Your task to perform on an android device: delete the emails in spam in the gmail app Image 0: 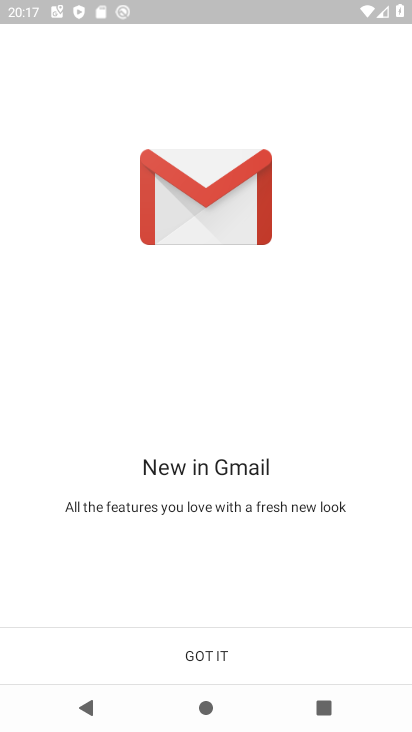
Step 0: press home button
Your task to perform on an android device: delete the emails in spam in the gmail app Image 1: 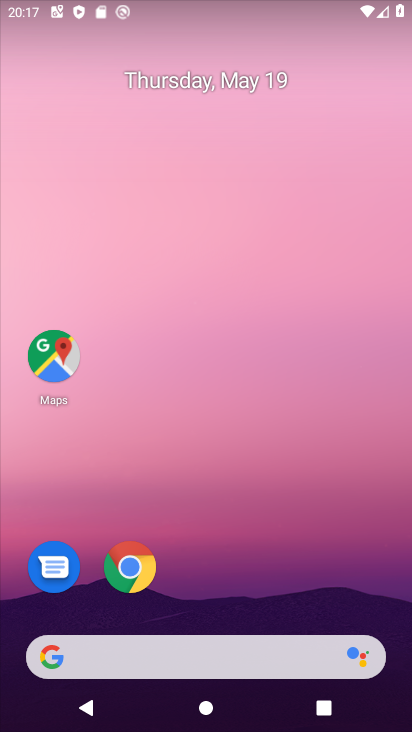
Step 1: drag from (222, 616) to (279, 192)
Your task to perform on an android device: delete the emails in spam in the gmail app Image 2: 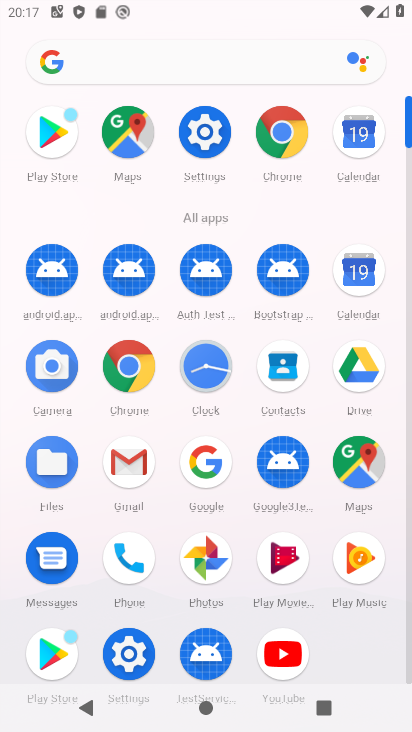
Step 2: click (115, 466)
Your task to perform on an android device: delete the emails in spam in the gmail app Image 3: 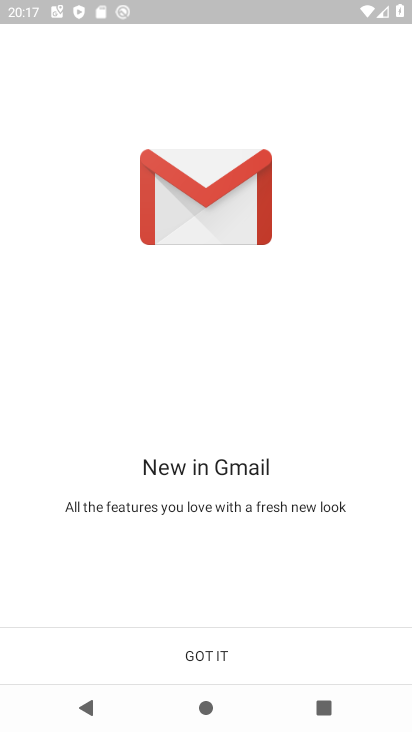
Step 3: click (220, 659)
Your task to perform on an android device: delete the emails in spam in the gmail app Image 4: 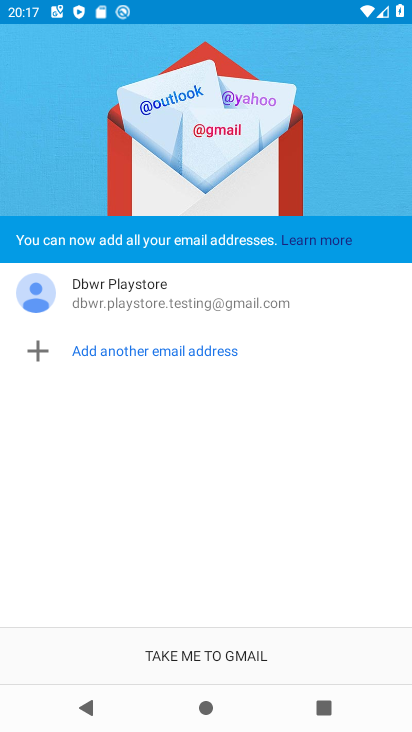
Step 4: click (219, 656)
Your task to perform on an android device: delete the emails in spam in the gmail app Image 5: 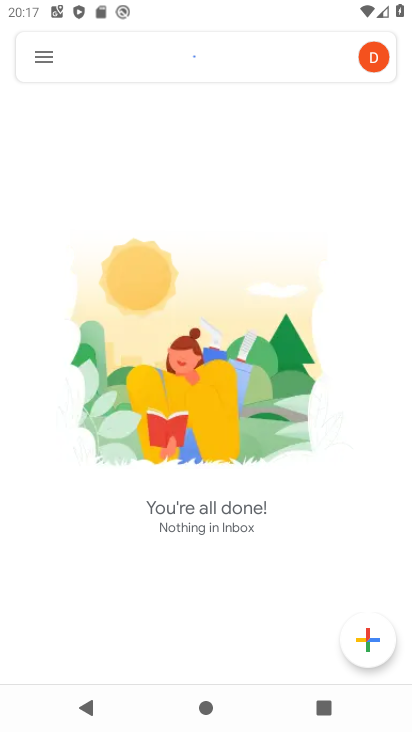
Step 5: click (53, 66)
Your task to perform on an android device: delete the emails in spam in the gmail app Image 6: 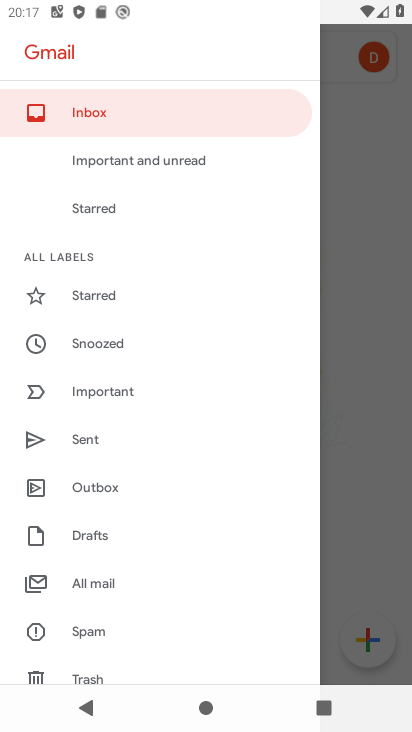
Step 6: click (87, 629)
Your task to perform on an android device: delete the emails in spam in the gmail app Image 7: 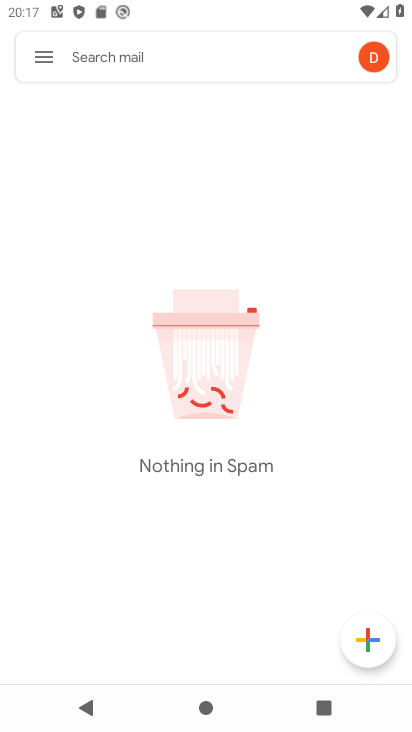
Step 7: task complete